Your task to perform on an android device: How do I get to the nearest McDonalds? Image 0: 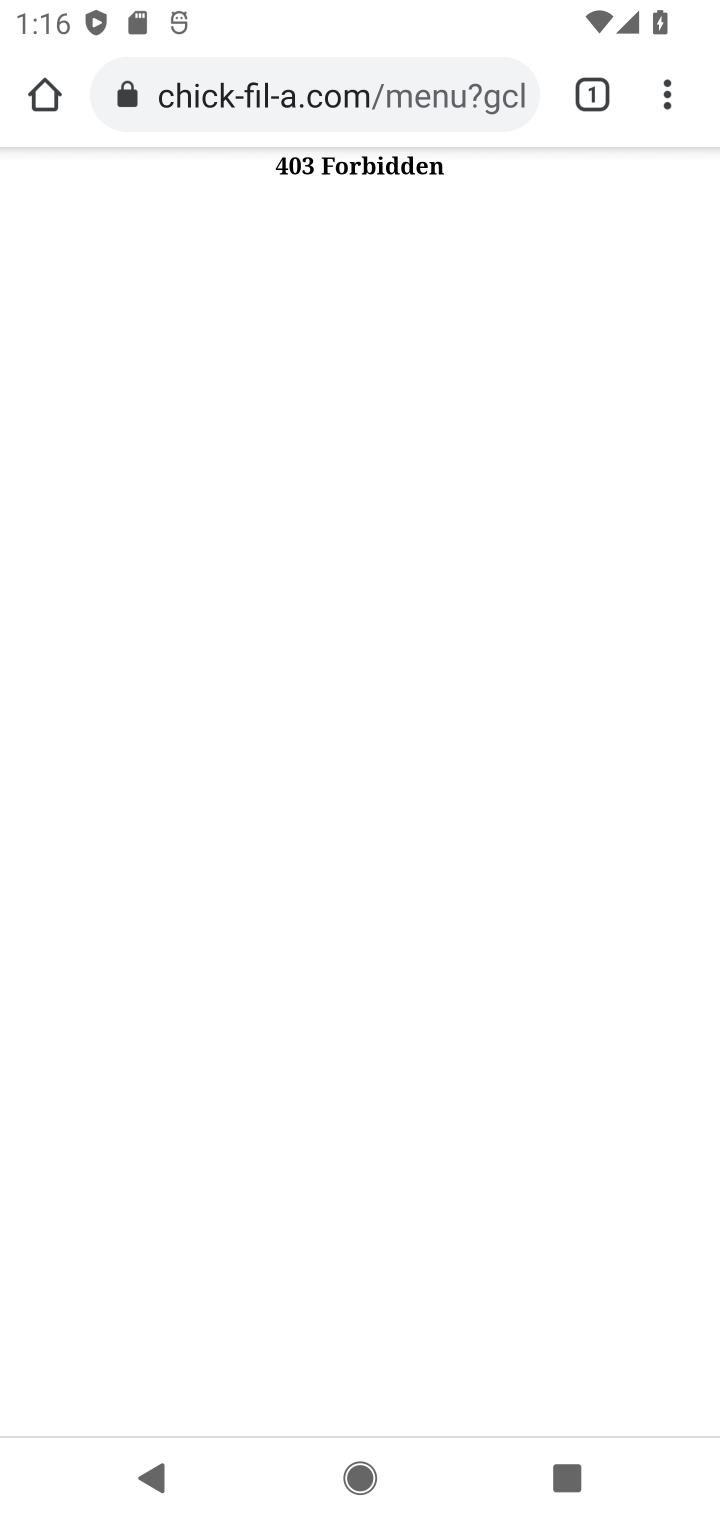
Step 0: press home button
Your task to perform on an android device: How do I get to the nearest McDonalds? Image 1: 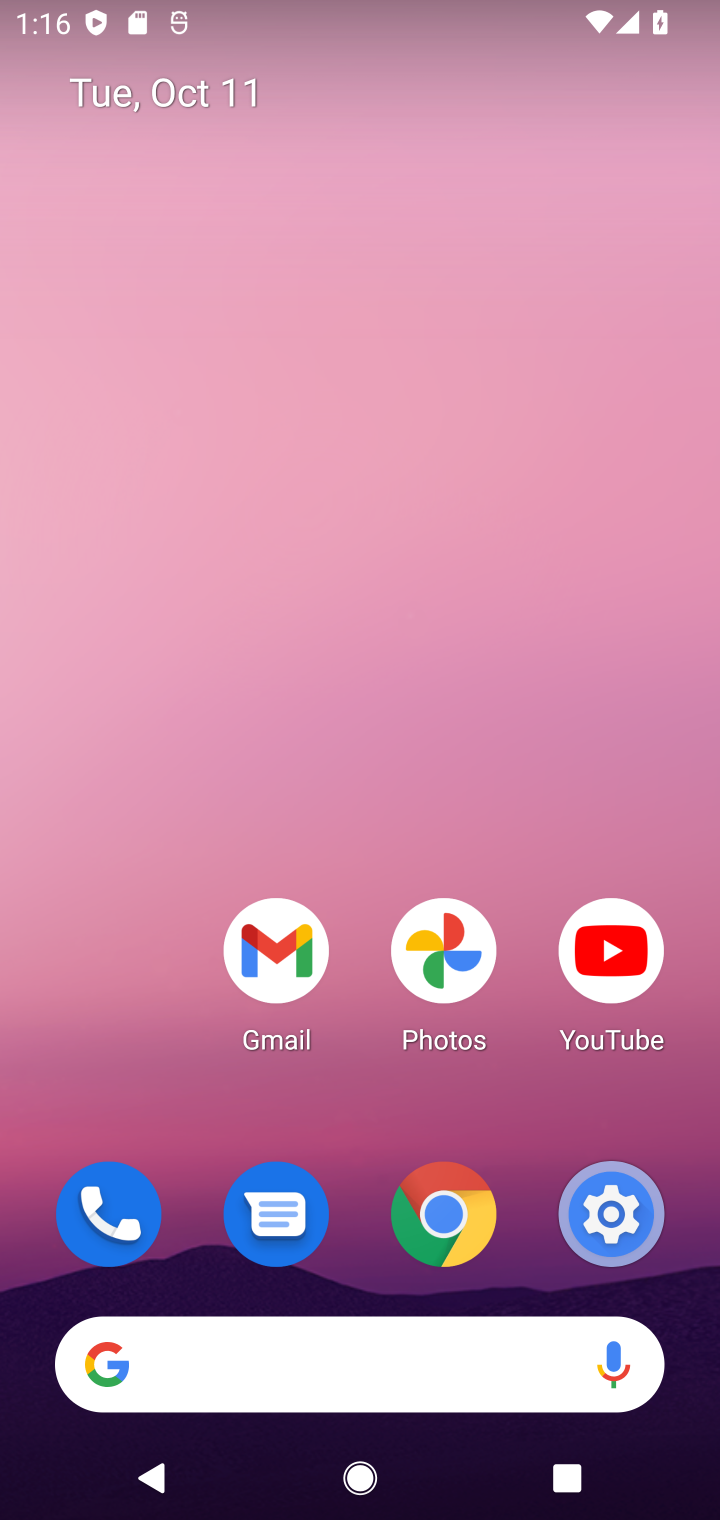
Step 1: click (346, 1352)
Your task to perform on an android device: How do I get to the nearest McDonalds? Image 2: 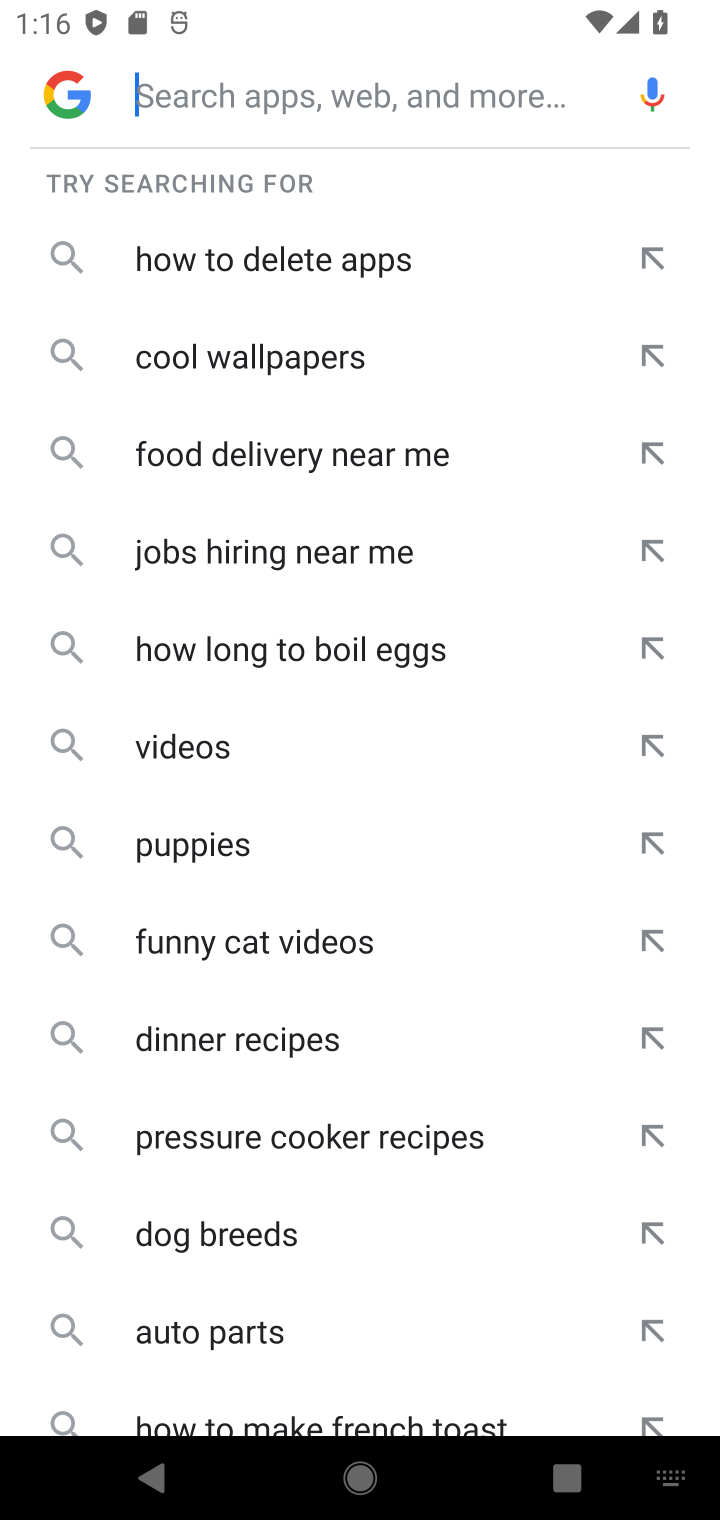
Step 2: type "How do I get to the nearest McDonalds?"
Your task to perform on an android device: How do I get to the nearest McDonalds? Image 3: 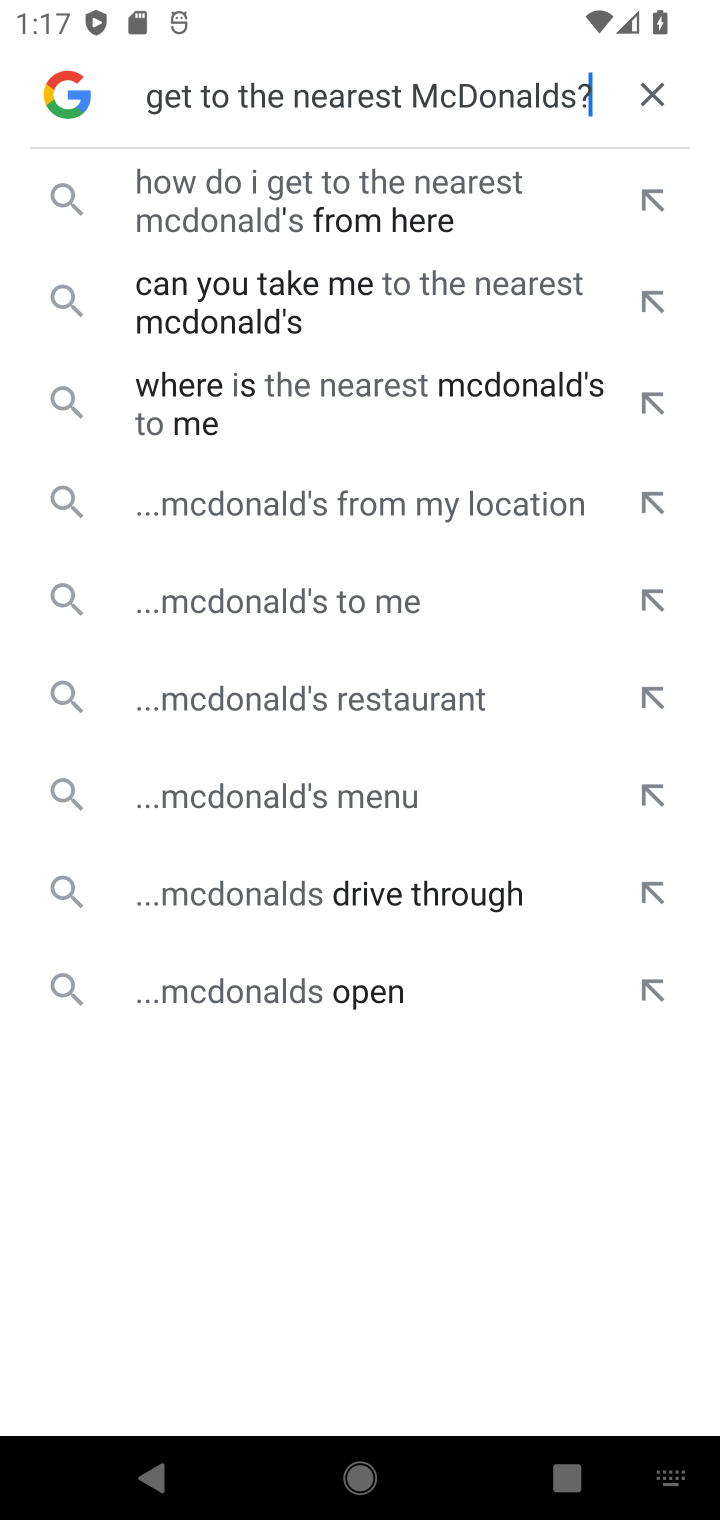
Step 3: click (246, 204)
Your task to perform on an android device: How do I get to the nearest McDonalds? Image 4: 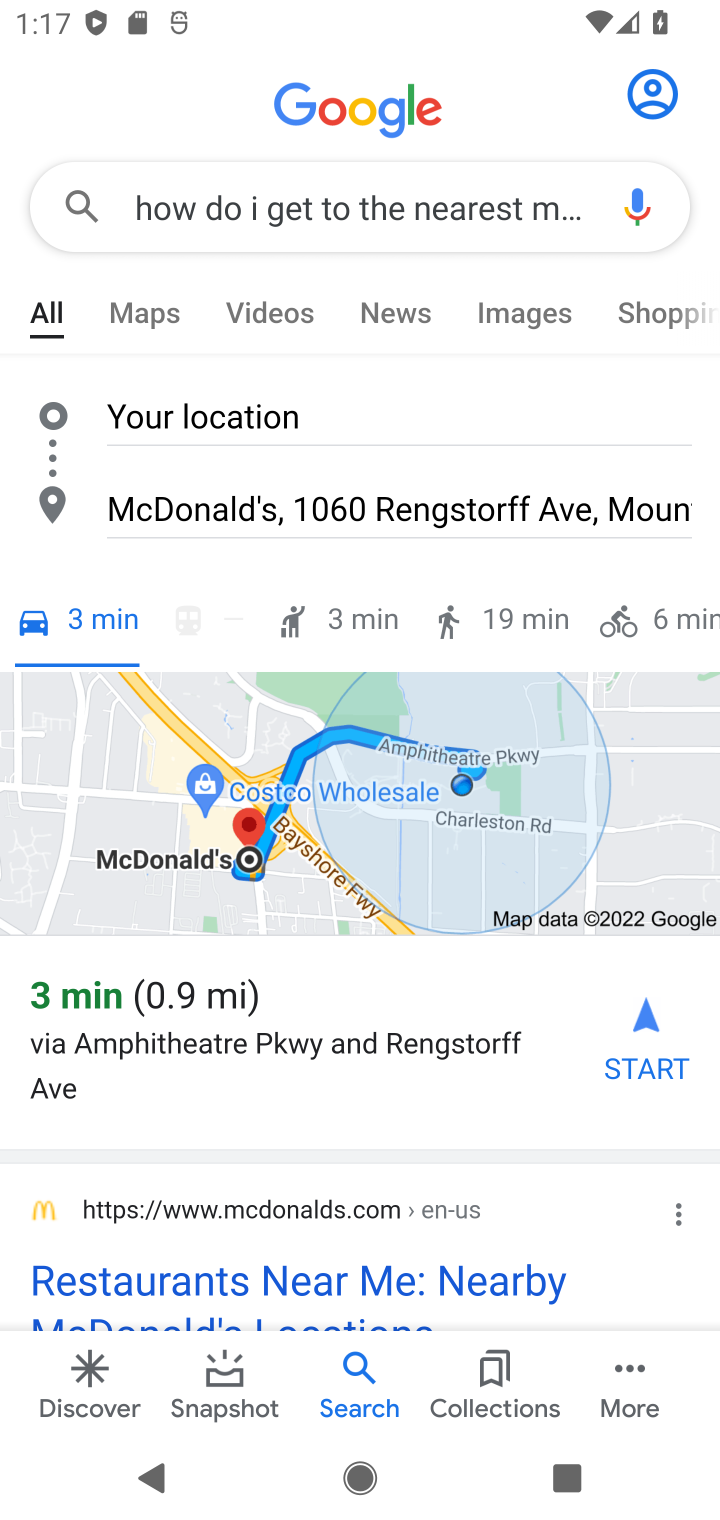
Step 4: task complete